Your task to perform on an android device: Open the web browser Image 0: 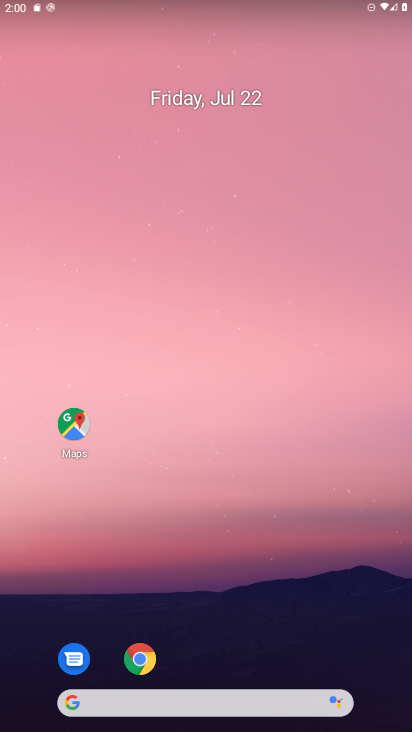
Step 0: click (144, 658)
Your task to perform on an android device: Open the web browser Image 1: 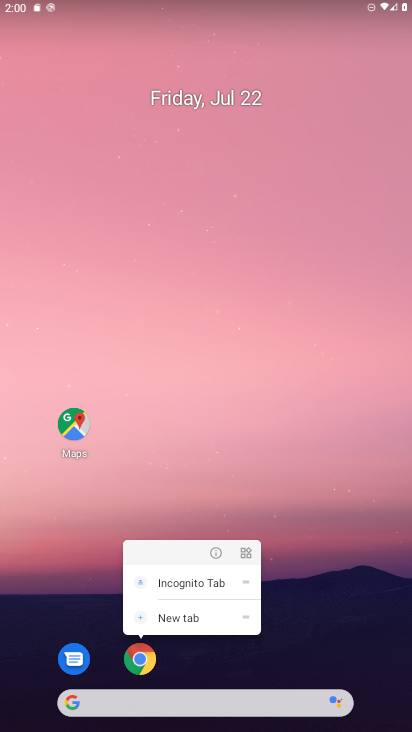
Step 1: click (138, 659)
Your task to perform on an android device: Open the web browser Image 2: 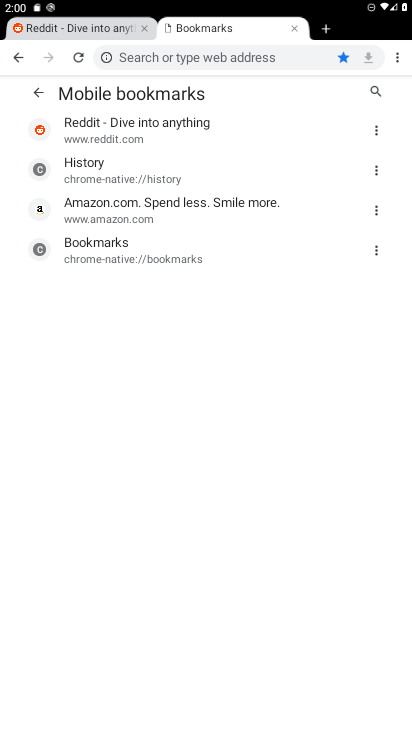
Step 2: task complete